Your task to perform on an android device: turn on the 12-hour format for clock Image 0: 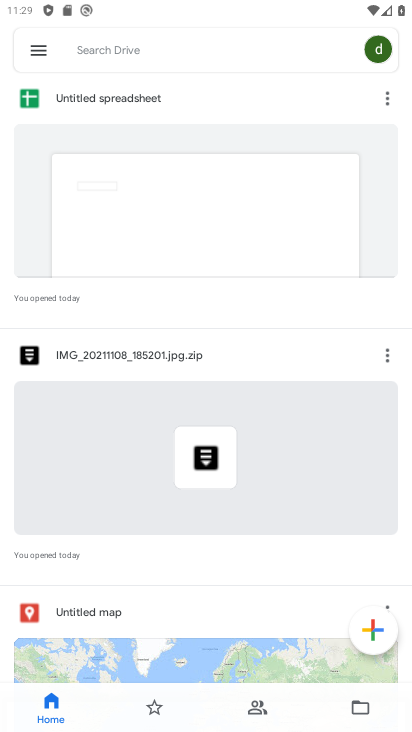
Step 0: press home button
Your task to perform on an android device: turn on the 12-hour format for clock Image 1: 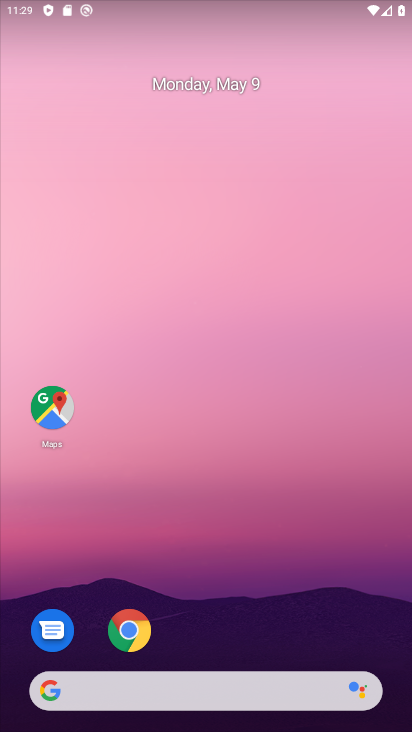
Step 1: drag from (150, 698) to (270, 209)
Your task to perform on an android device: turn on the 12-hour format for clock Image 2: 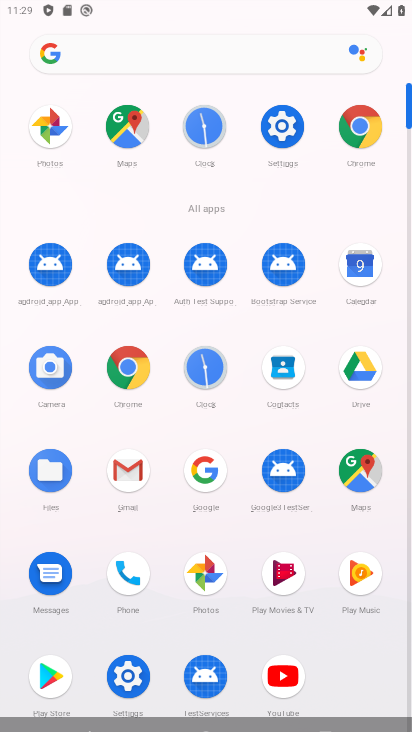
Step 2: click (205, 126)
Your task to perform on an android device: turn on the 12-hour format for clock Image 3: 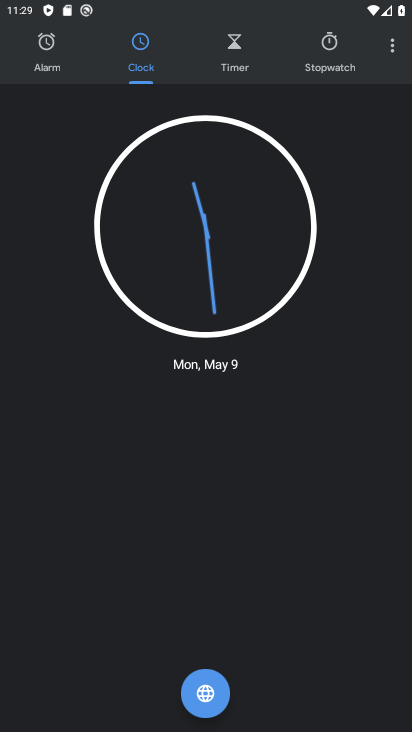
Step 3: click (393, 49)
Your task to perform on an android device: turn on the 12-hour format for clock Image 4: 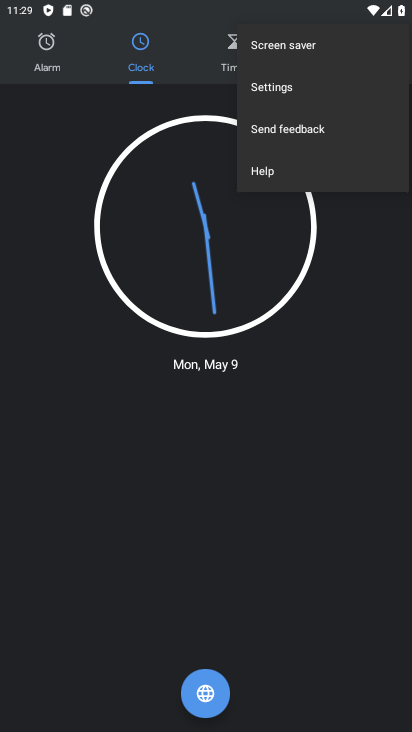
Step 4: click (289, 90)
Your task to perform on an android device: turn on the 12-hour format for clock Image 5: 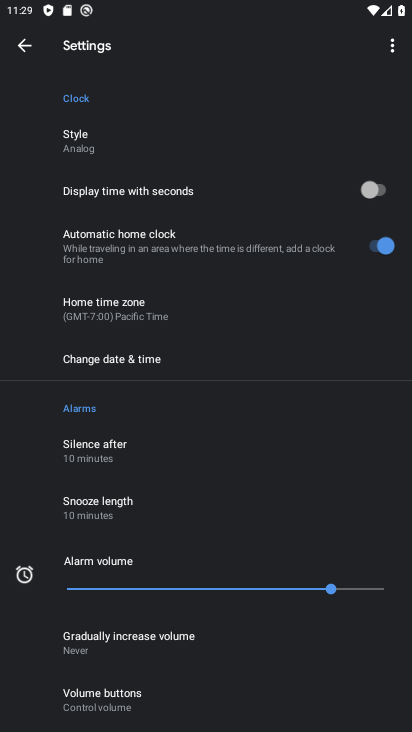
Step 5: click (142, 358)
Your task to perform on an android device: turn on the 12-hour format for clock Image 6: 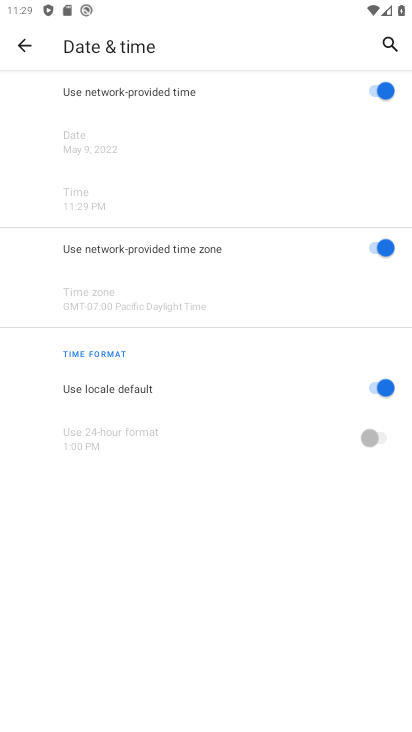
Step 6: task complete